Your task to perform on an android device: change alarm snooze length Image 0: 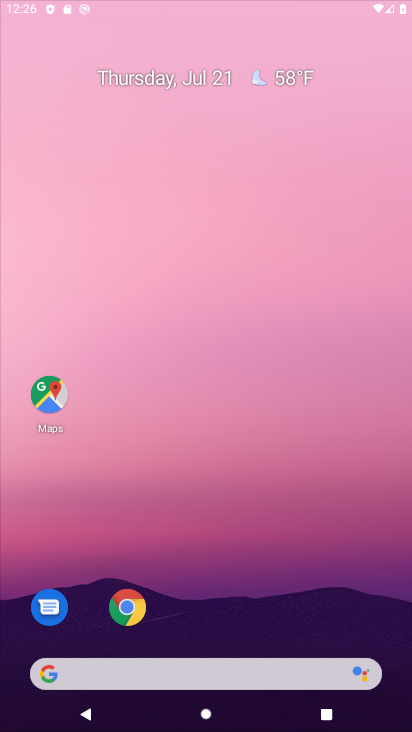
Step 0: press home button
Your task to perform on an android device: change alarm snooze length Image 1: 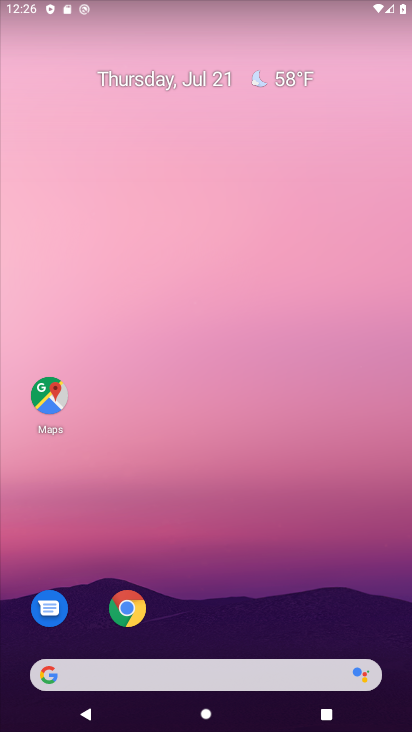
Step 1: drag from (213, 637) to (230, 121)
Your task to perform on an android device: change alarm snooze length Image 2: 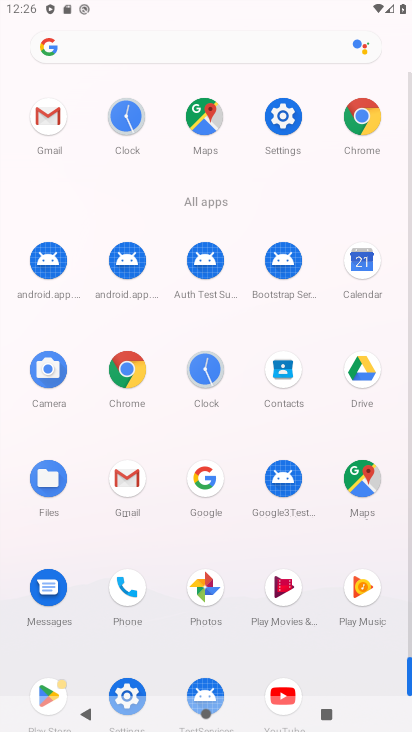
Step 2: click (206, 362)
Your task to perform on an android device: change alarm snooze length Image 3: 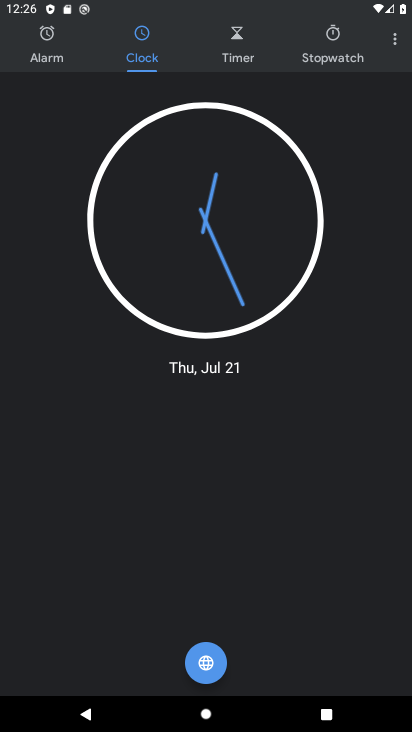
Step 3: click (390, 30)
Your task to perform on an android device: change alarm snooze length Image 4: 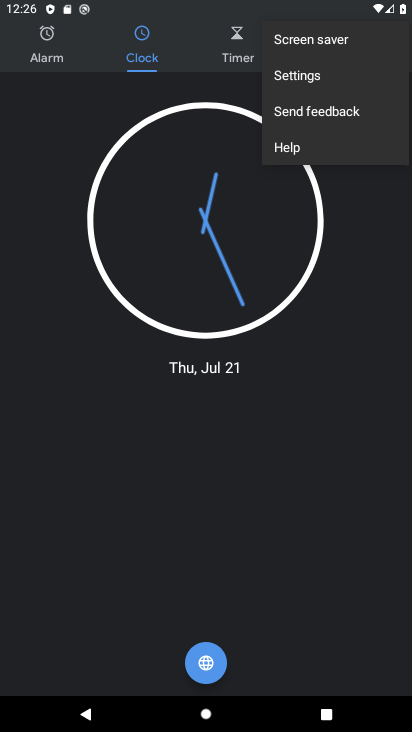
Step 4: click (344, 79)
Your task to perform on an android device: change alarm snooze length Image 5: 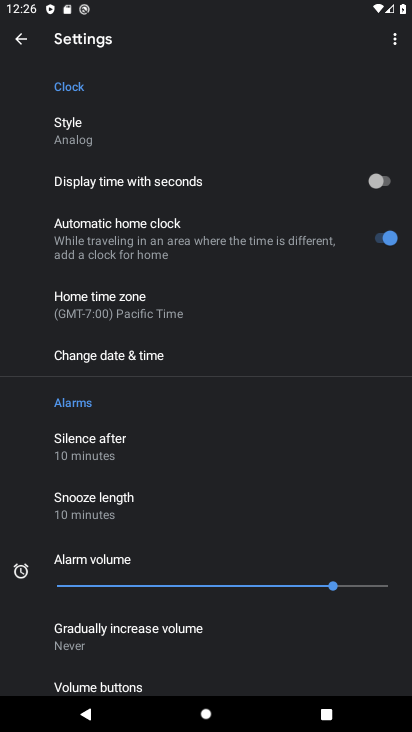
Step 5: click (136, 505)
Your task to perform on an android device: change alarm snooze length Image 6: 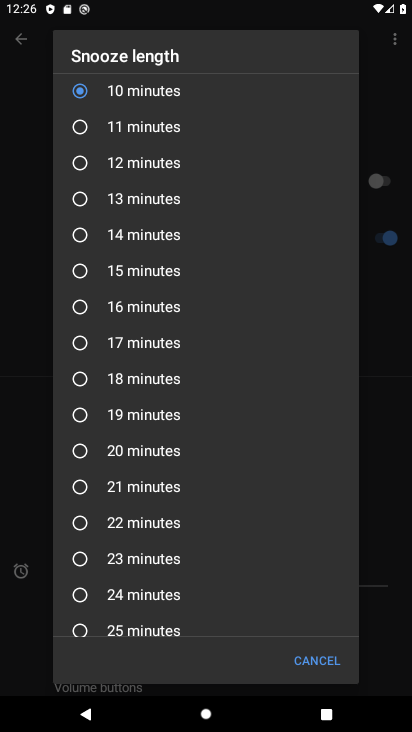
Step 6: drag from (134, 170) to (175, 556)
Your task to perform on an android device: change alarm snooze length Image 7: 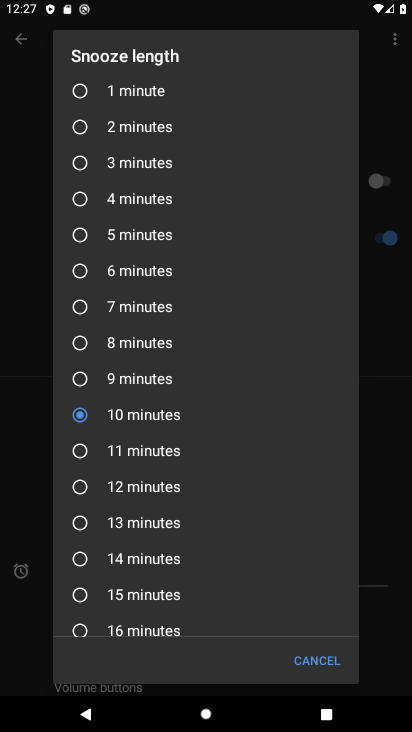
Step 7: click (81, 163)
Your task to perform on an android device: change alarm snooze length Image 8: 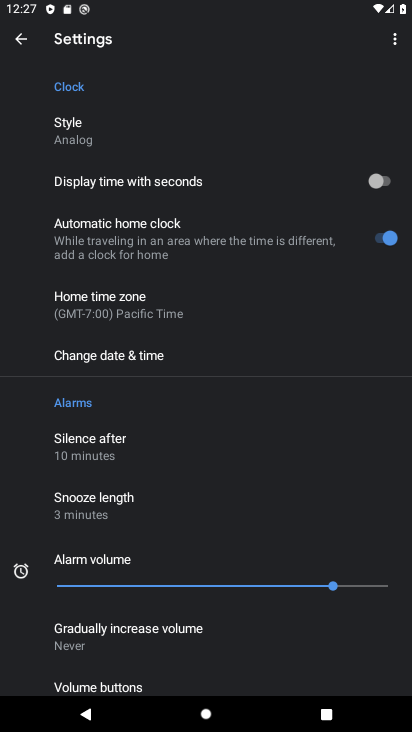
Step 8: task complete